Your task to perform on an android device: Search for pizza restaurants on Maps Image 0: 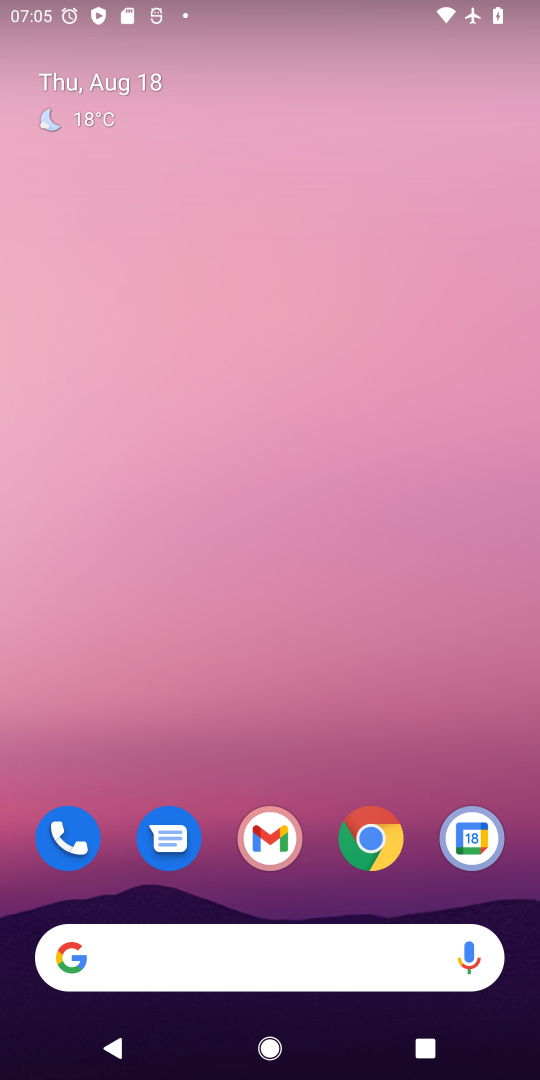
Step 0: press home button
Your task to perform on an android device: Search for pizza restaurants on Maps Image 1: 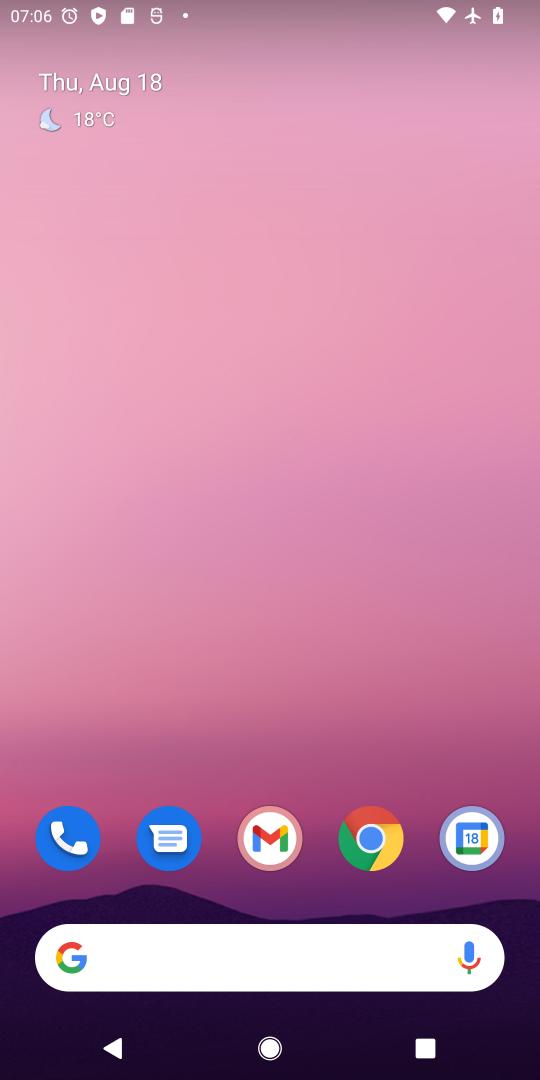
Step 1: drag from (336, 763) to (361, 69)
Your task to perform on an android device: Search for pizza restaurants on Maps Image 2: 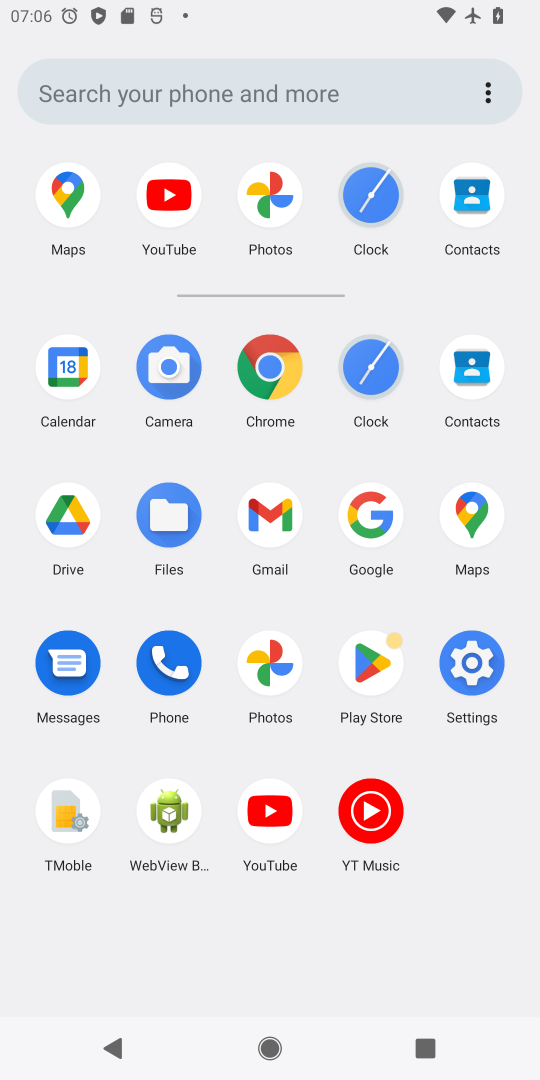
Step 2: click (55, 213)
Your task to perform on an android device: Search for pizza restaurants on Maps Image 3: 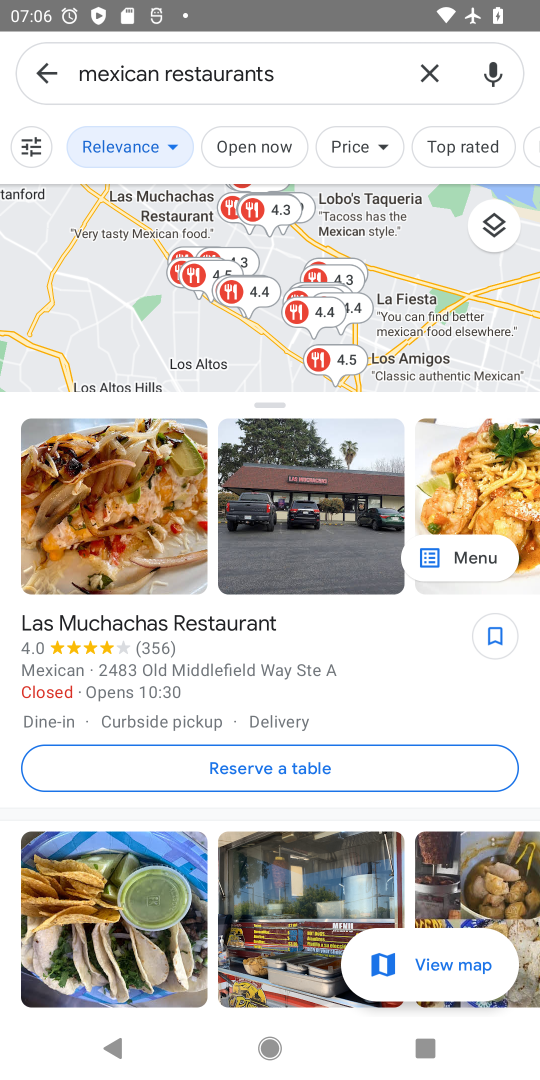
Step 3: click (429, 85)
Your task to perform on an android device: Search for pizza restaurants on Maps Image 4: 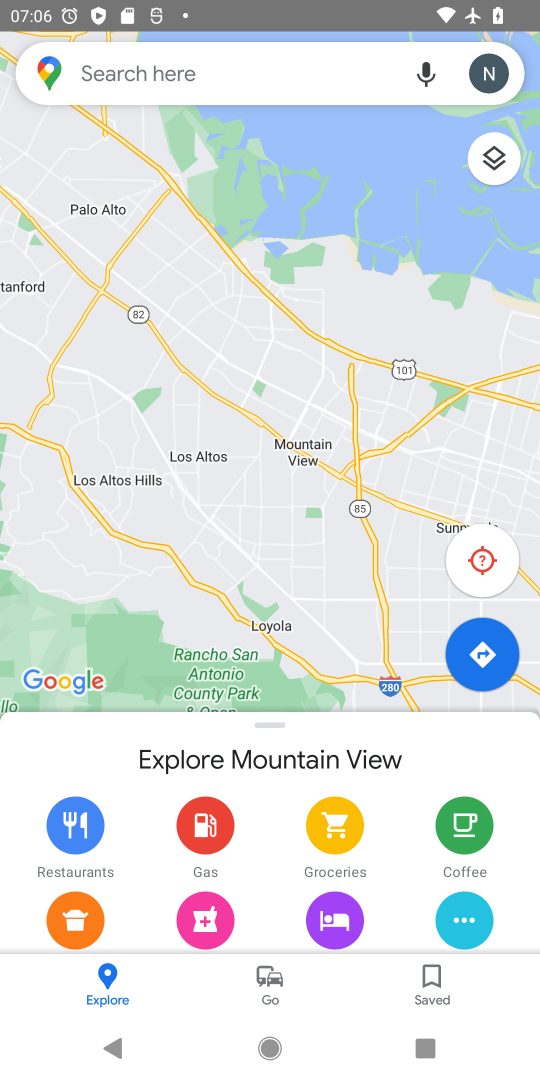
Step 4: click (188, 73)
Your task to perform on an android device: Search for pizza restaurants on Maps Image 5: 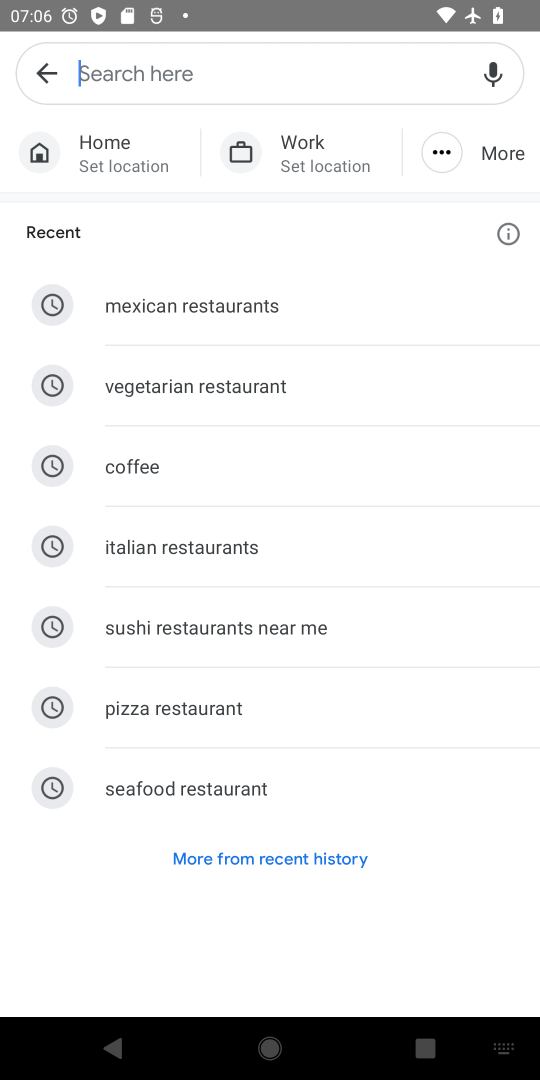
Step 5: click (174, 709)
Your task to perform on an android device: Search for pizza restaurants on Maps Image 6: 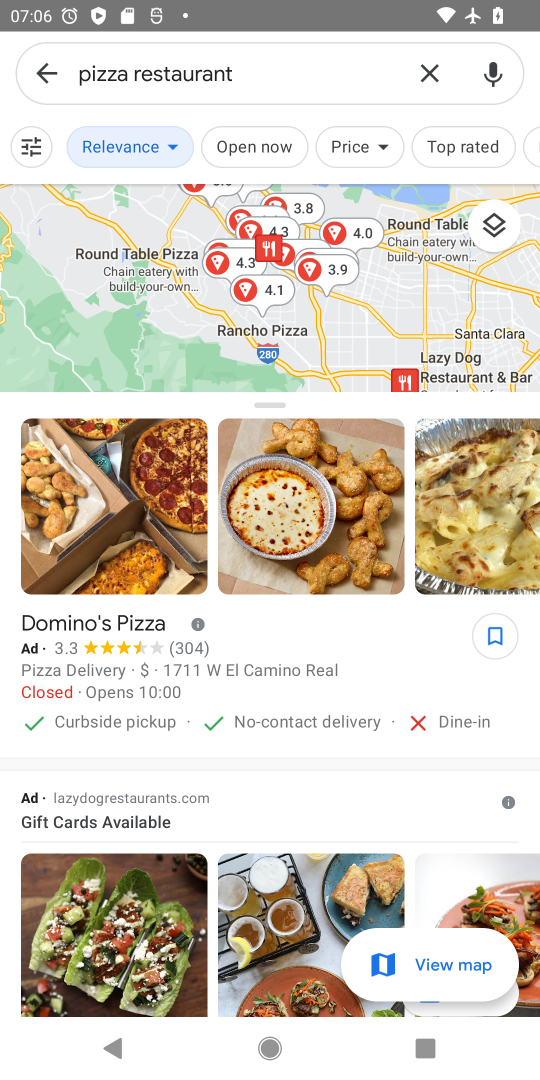
Step 6: task complete